Your task to perform on an android device: toggle location history Image 0: 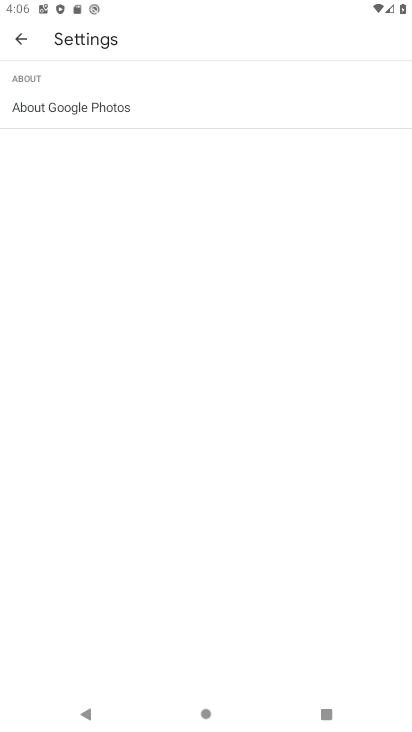
Step 0: press home button
Your task to perform on an android device: toggle location history Image 1: 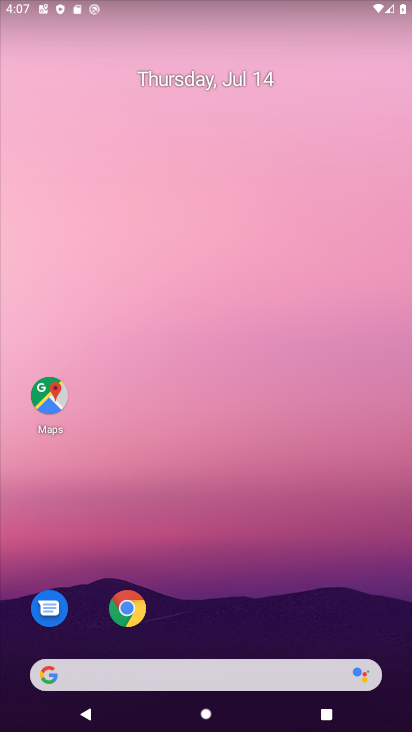
Step 1: drag from (69, 580) to (245, 290)
Your task to perform on an android device: toggle location history Image 2: 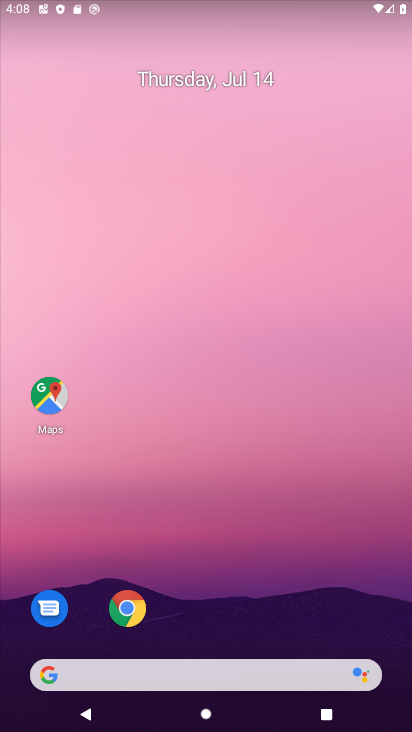
Step 2: drag from (137, 411) to (234, 231)
Your task to perform on an android device: toggle location history Image 3: 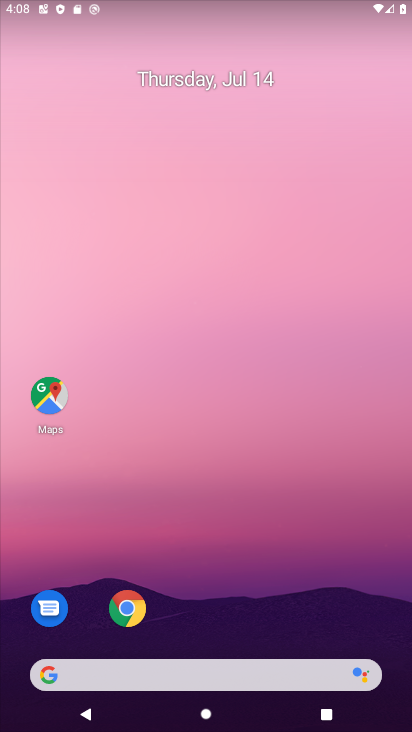
Step 3: drag from (15, 634) to (239, 199)
Your task to perform on an android device: toggle location history Image 4: 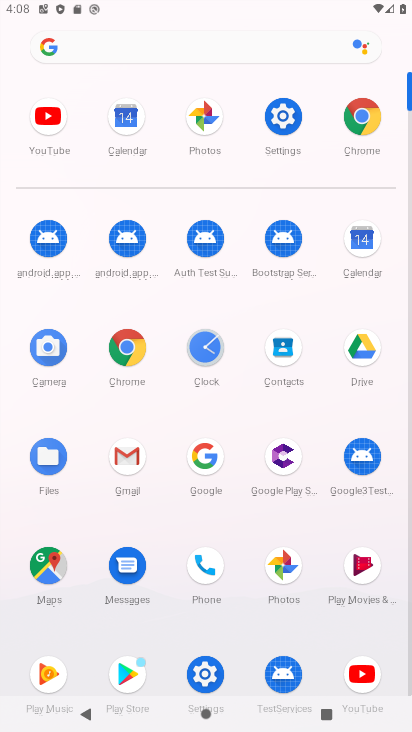
Step 4: click (290, 132)
Your task to perform on an android device: toggle location history Image 5: 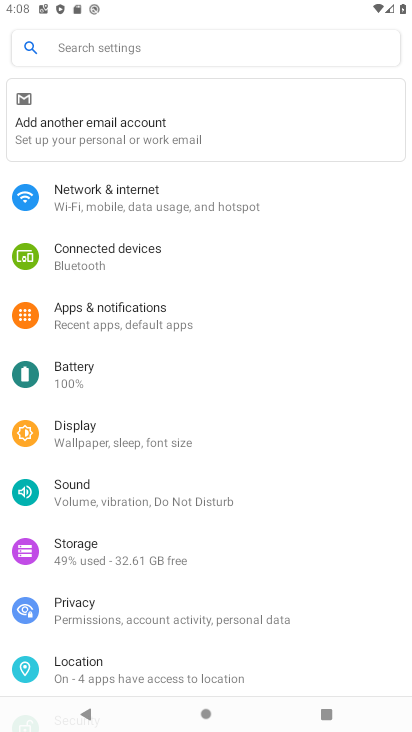
Step 5: click (114, 661)
Your task to perform on an android device: toggle location history Image 6: 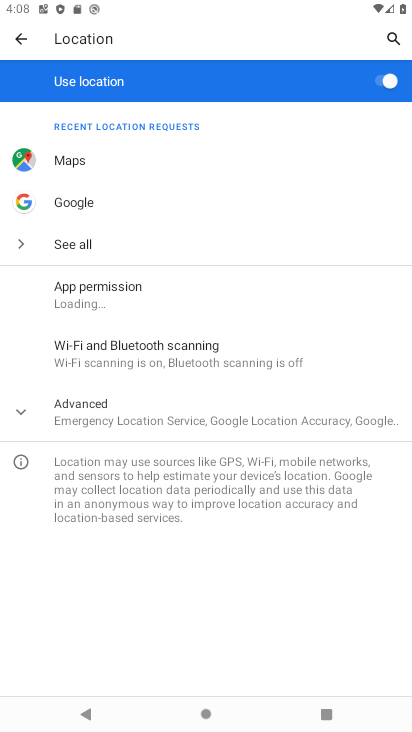
Step 6: click (138, 422)
Your task to perform on an android device: toggle location history Image 7: 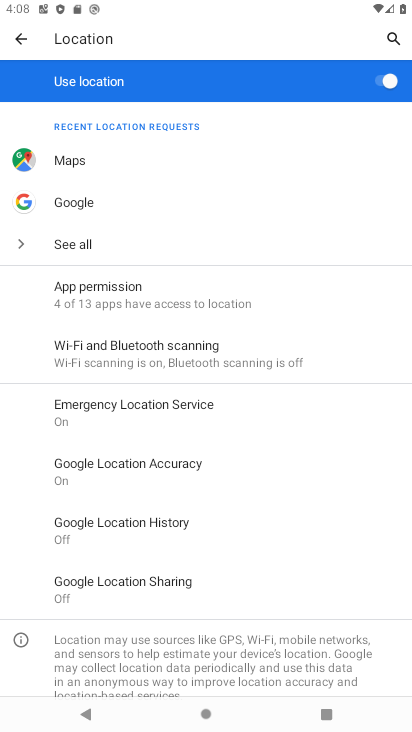
Step 7: click (178, 530)
Your task to perform on an android device: toggle location history Image 8: 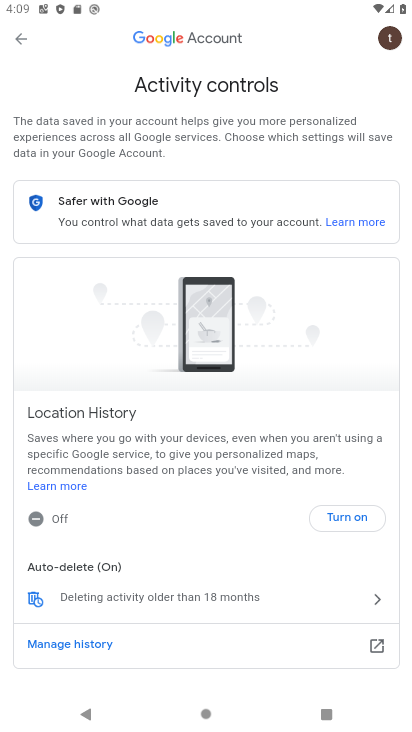
Step 8: click (327, 523)
Your task to perform on an android device: toggle location history Image 9: 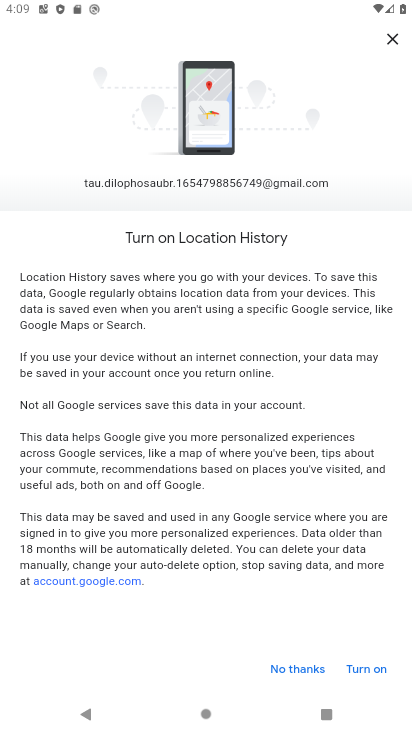
Step 9: click (386, 665)
Your task to perform on an android device: toggle location history Image 10: 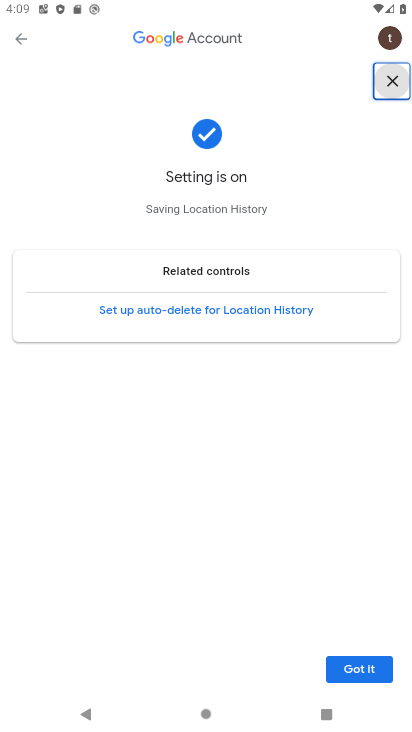
Step 10: task complete